Your task to perform on an android device: Open Youtube and go to "Your channel" Image 0: 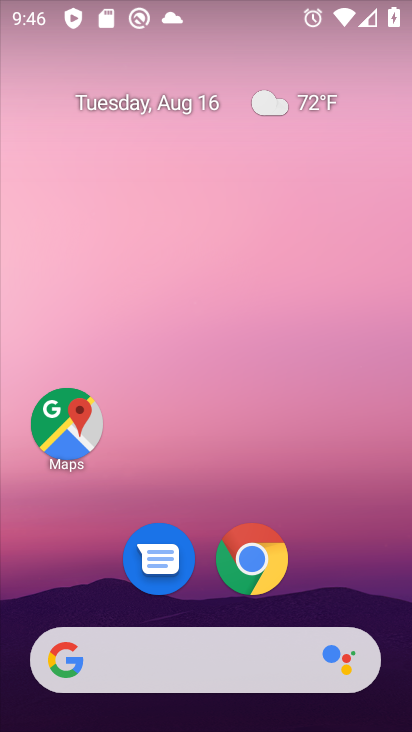
Step 0: drag from (228, 660) to (205, 67)
Your task to perform on an android device: Open Youtube and go to "Your channel" Image 1: 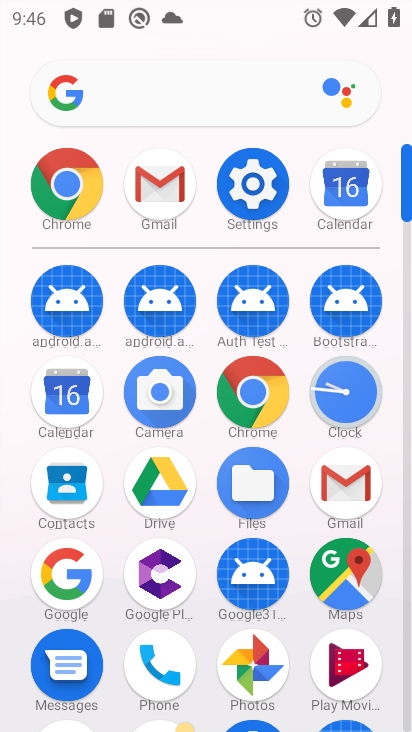
Step 1: drag from (207, 544) to (161, 176)
Your task to perform on an android device: Open Youtube and go to "Your channel" Image 2: 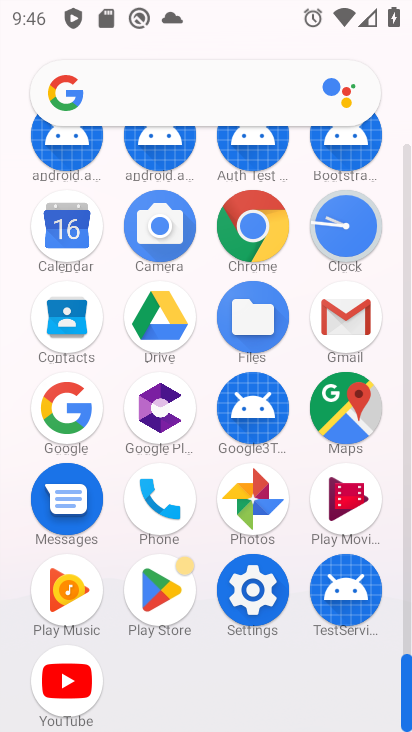
Step 2: click (65, 678)
Your task to perform on an android device: Open Youtube and go to "Your channel" Image 3: 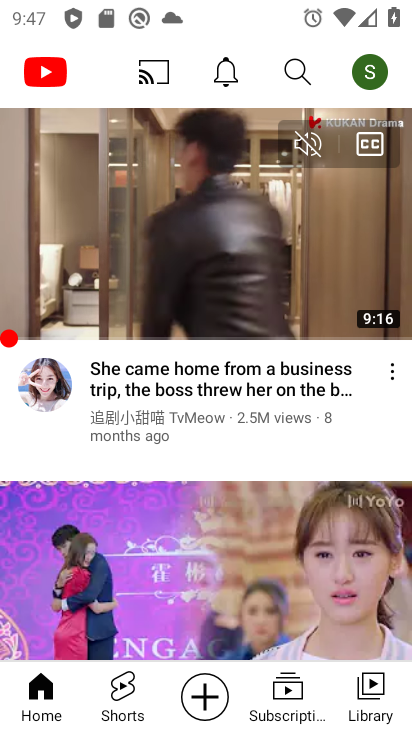
Step 3: click (366, 75)
Your task to perform on an android device: Open Youtube and go to "Your channel" Image 4: 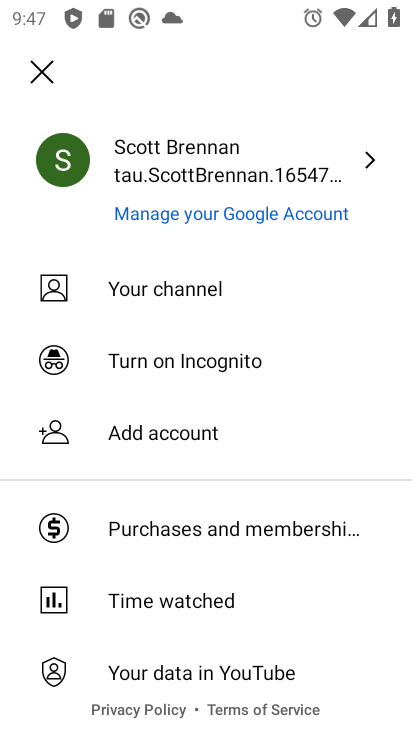
Step 4: click (199, 296)
Your task to perform on an android device: Open Youtube and go to "Your channel" Image 5: 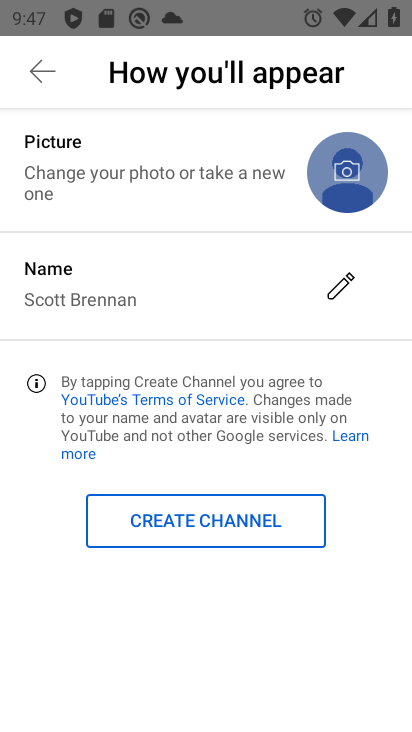
Step 5: task complete